Your task to perform on an android device: Is it going to rain tomorrow? Image 0: 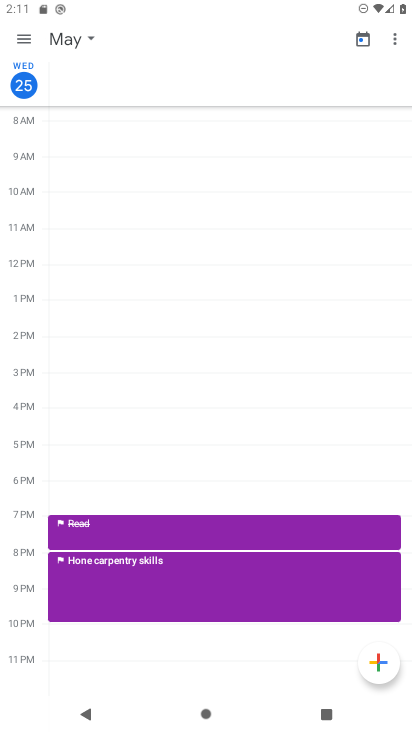
Step 0: press home button
Your task to perform on an android device: Is it going to rain tomorrow? Image 1: 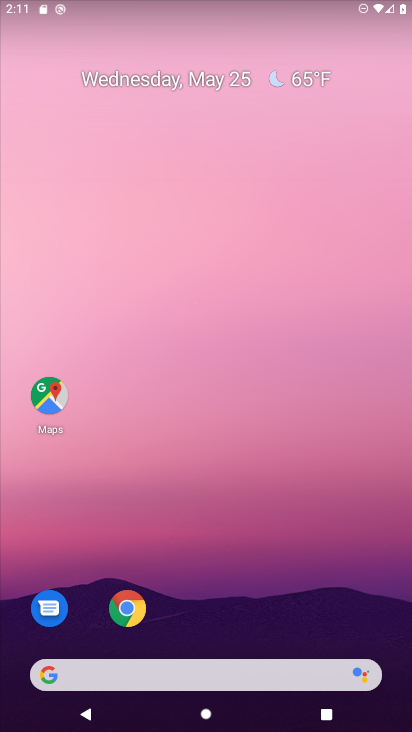
Step 1: click (302, 76)
Your task to perform on an android device: Is it going to rain tomorrow? Image 2: 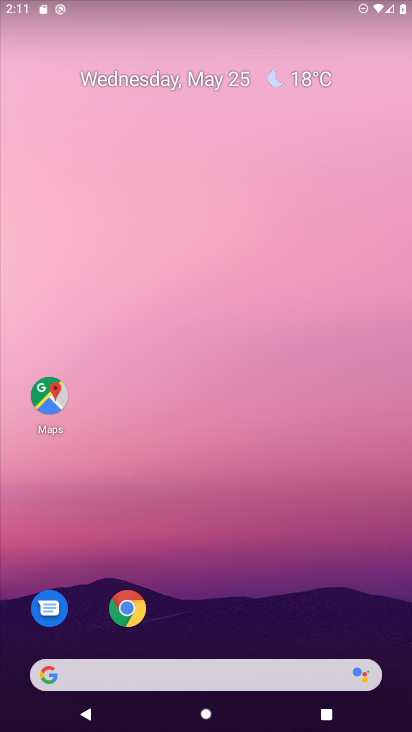
Step 2: click (293, 77)
Your task to perform on an android device: Is it going to rain tomorrow? Image 3: 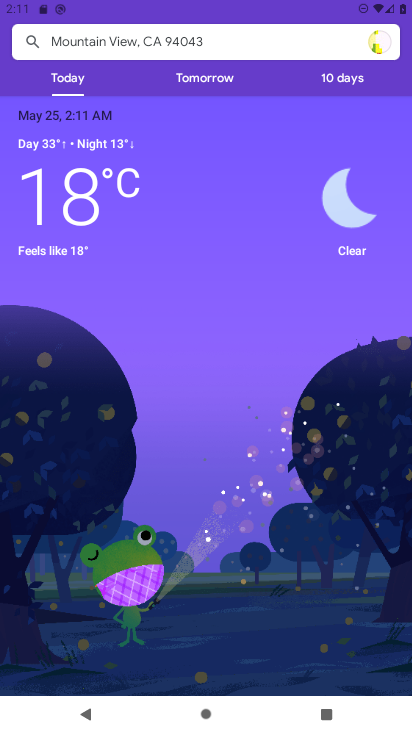
Step 3: click (201, 72)
Your task to perform on an android device: Is it going to rain tomorrow? Image 4: 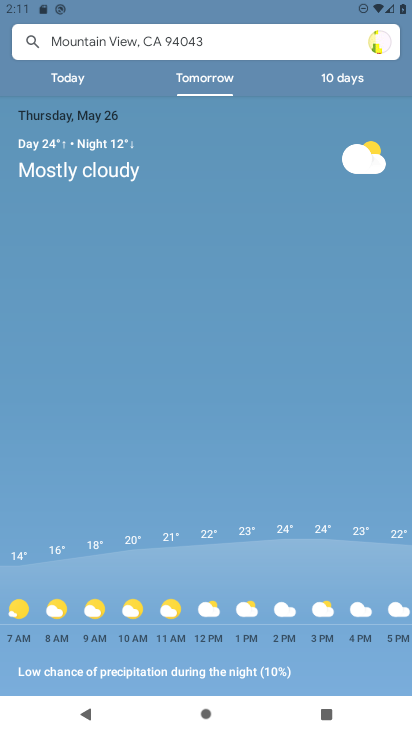
Step 4: task complete